Your task to perform on an android device: Go to CNN.com Image 0: 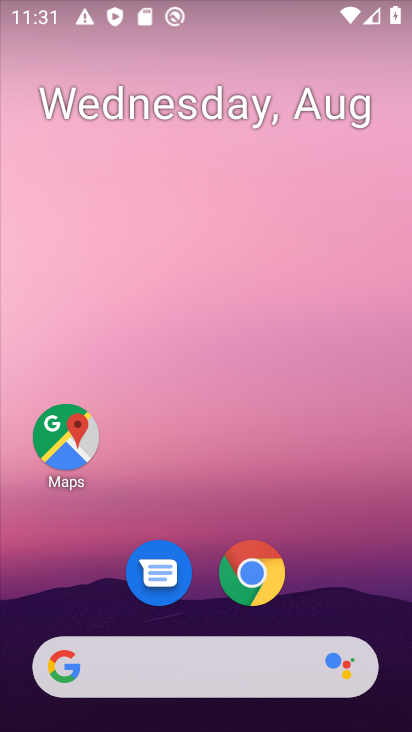
Step 0: drag from (369, 555) to (194, 0)
Your task to perform on an android device: Go to CNN.com Image 1: 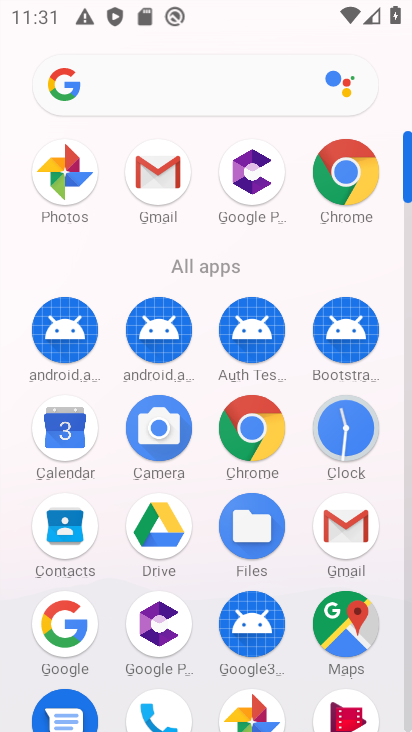
Step 1: click (341, 176)
Your task to perform on an android device: Go to CNN.com Image 2: 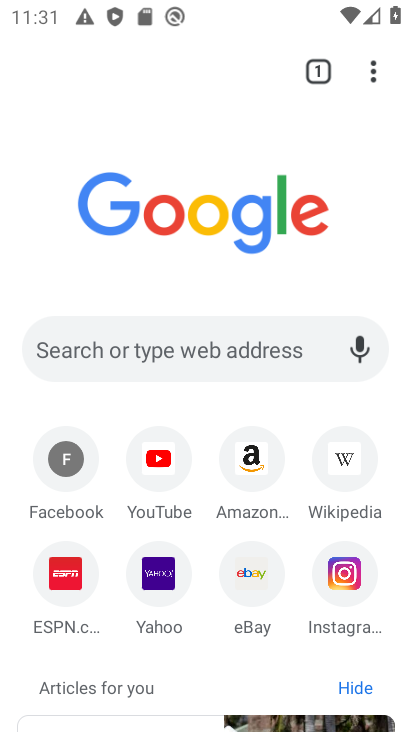
Step 2: click (183, 341)
Your task to perform on an android device: Go to CNN.com Image 3: 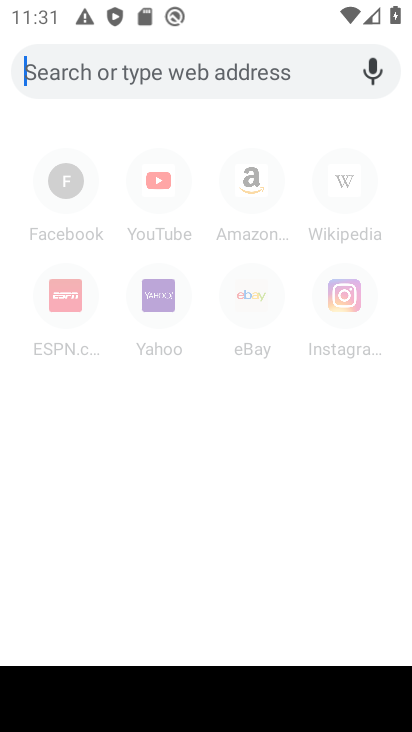
Step 3: type ""
Your task to perform on an android device: Go to CNN.com Image 4: 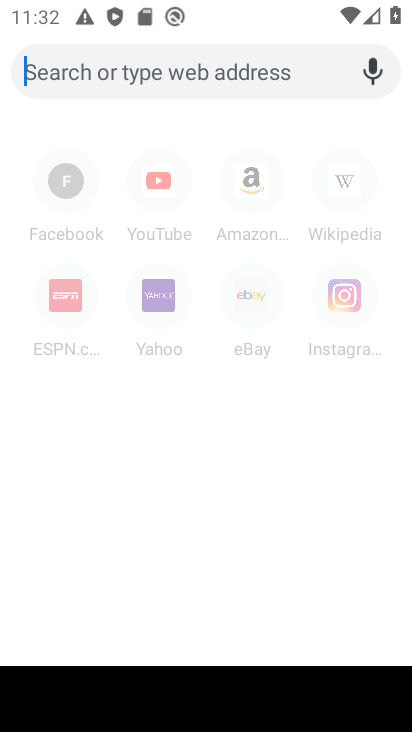
Step 4: type "cnn.com"
Your task to perform on an android device: Go to CNN.com Image 5: 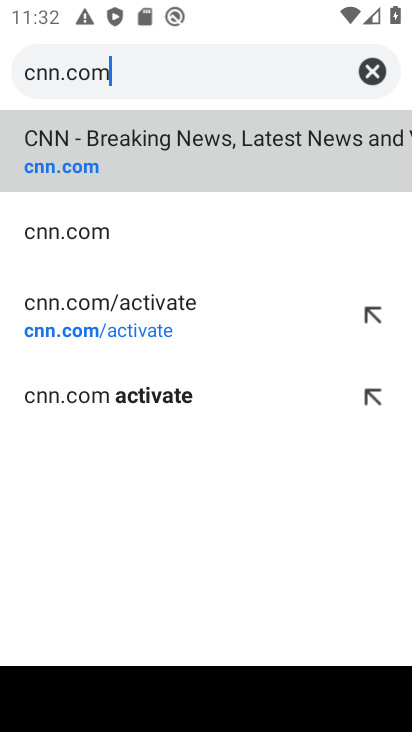
Step 5: click (170, 172)
Your task to perform on an android device: Go to CNN.com Image 6: 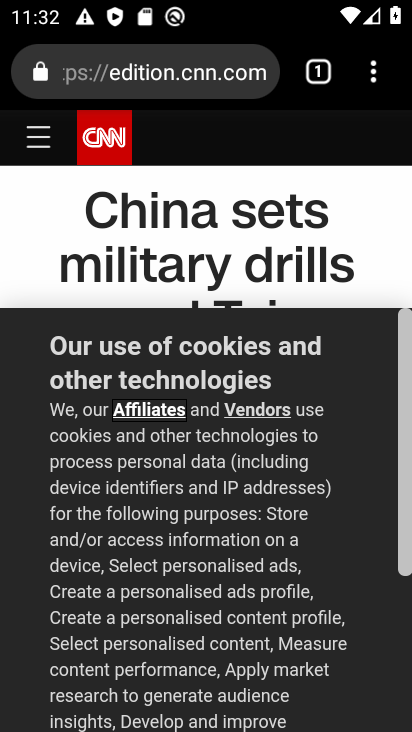
Step 6: task complete